Your task to perform on an android device: Go to Wikipedia Image 0: 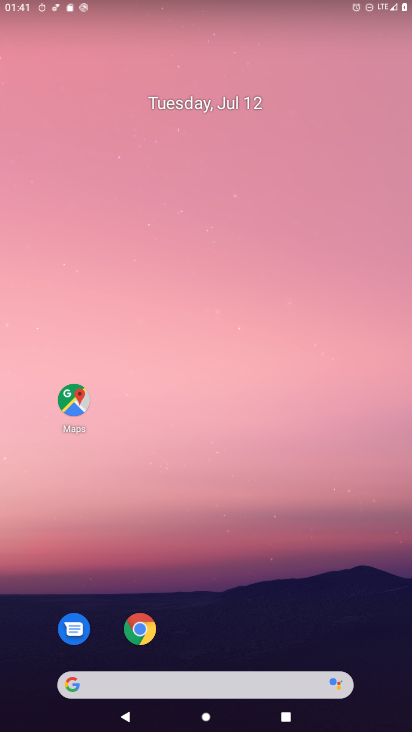
Step 0: click (179, 686)
Your task to perform on an android device: Go to Wikipedia Image 1: 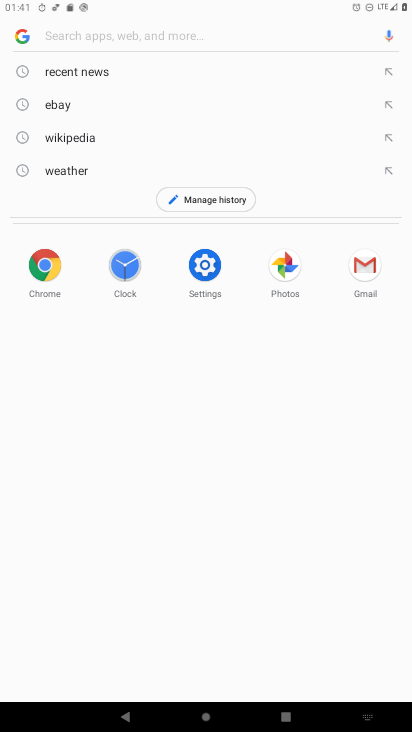
Step 1: type "Wikipedia"
Your task to perform on an android device: Go to Wikipedia Image 2: 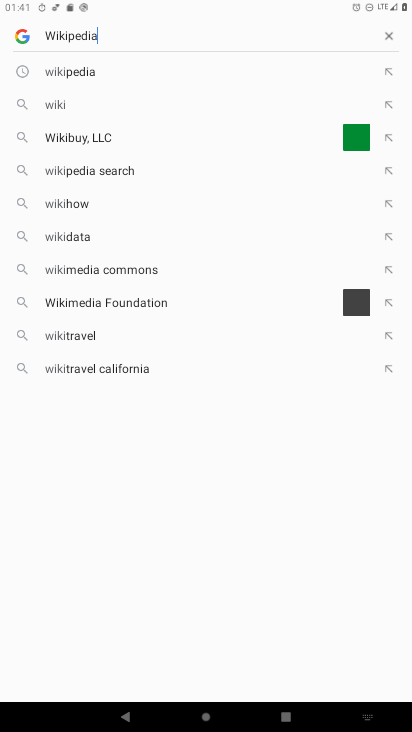
Step 2: type ""
Your task to perform on an android device: Go to Wikipedia Image 3: 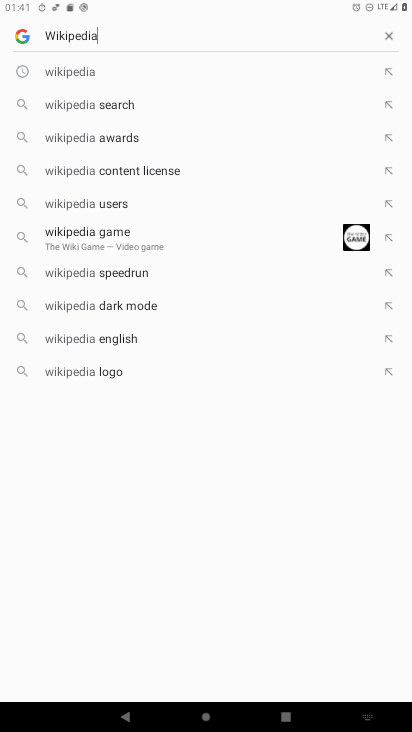
Step 3: click (78, 76)
Your task to perform on an android device: Go to Wikipedia Image 4: 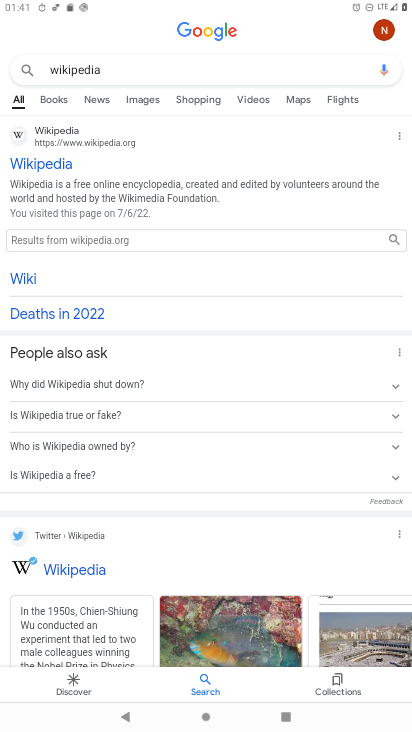
Step 4: task complete